Your task to perform on an android device: Open Reddit.com Image 0: 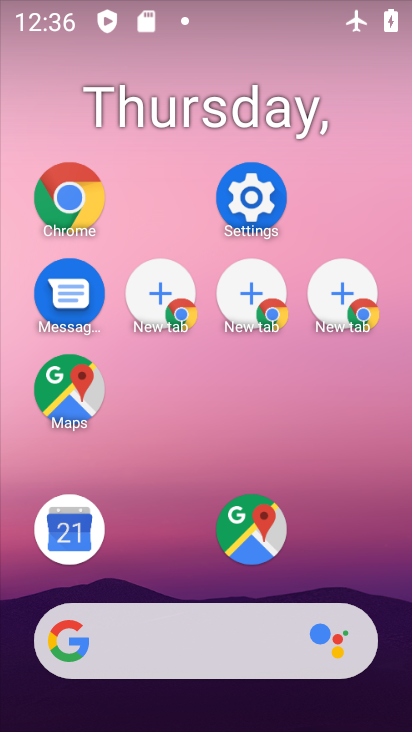
Step 0: press home button
Your task to perform on an android device: Open Reddit.com Image 1: 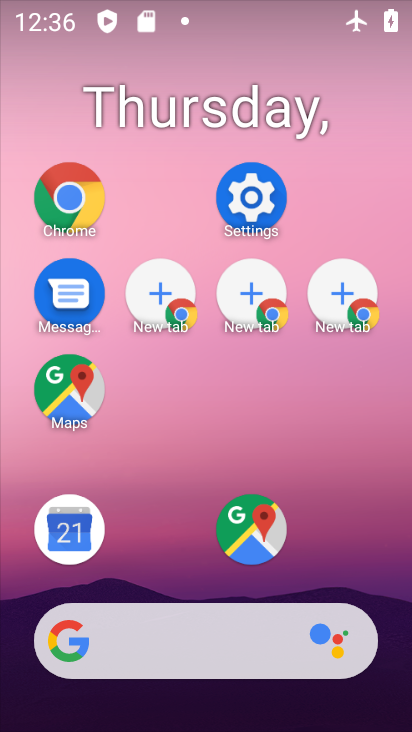
Step 1: click (102, 94)
Your task to perform on an android device: Open Reddit.com Image 2: 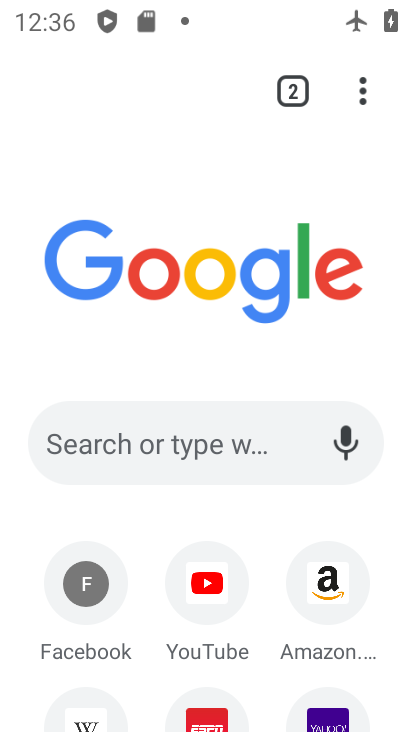
Step 2: click (107, 448)
Your task to perform on an android device: Open Reddit.com Image 3: 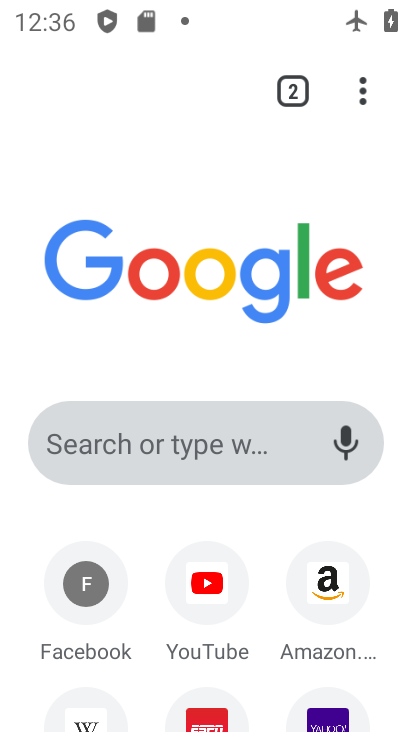
Step 3: click (103, 449)
Your task to perform on an android device: Open Reddit.com Image 4: 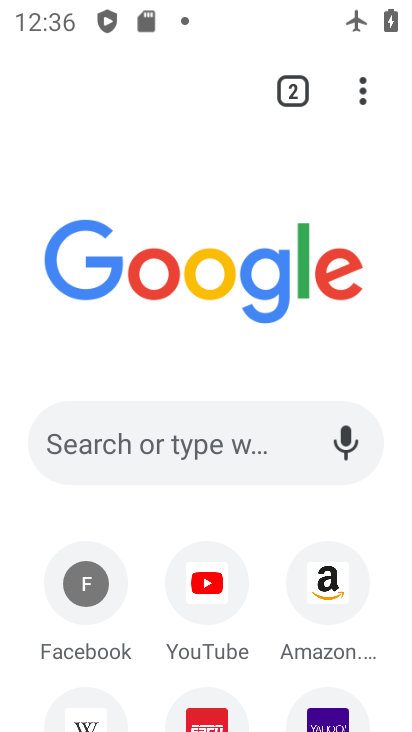
Step 4: click (167, 444)
Your task to perform on an android device: Open Reddit.com Image 5: 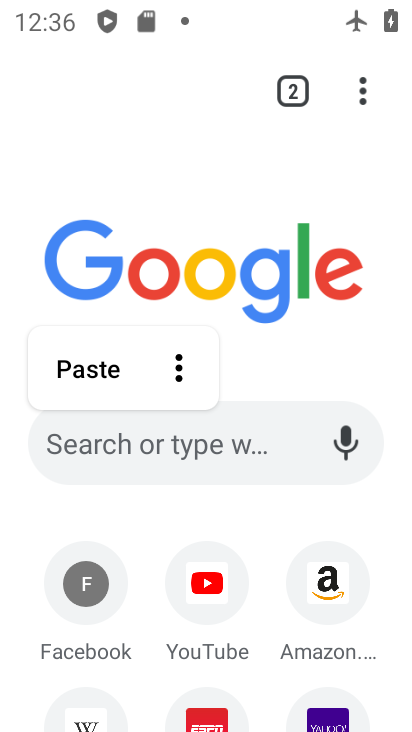
Step 5: click (78, 447)
Your task to perform on an android device: Open Reddit.com Image 6: 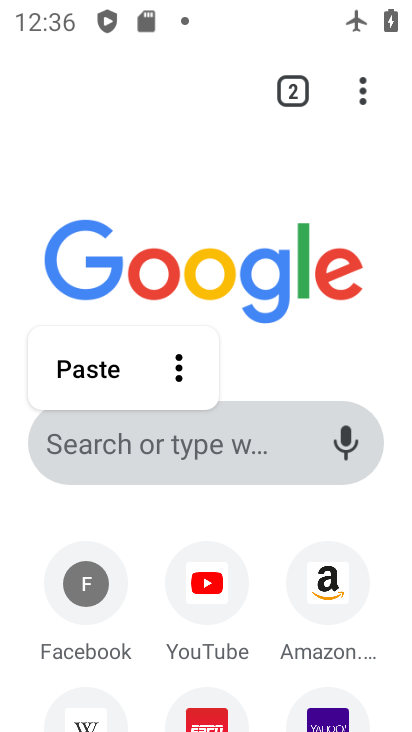
Step 6: click (80, 445)
Your task to perform on an android device: Open Reddit.com Image 7: 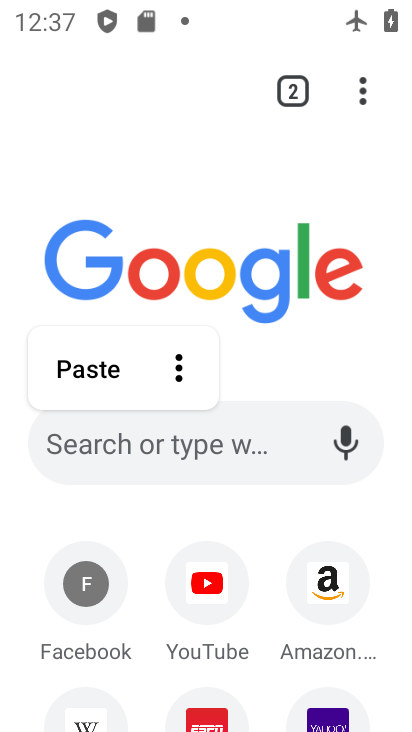
Step 7: click (87, 428)
Your task to perform on an android device: Open Reddit.com Image 8: 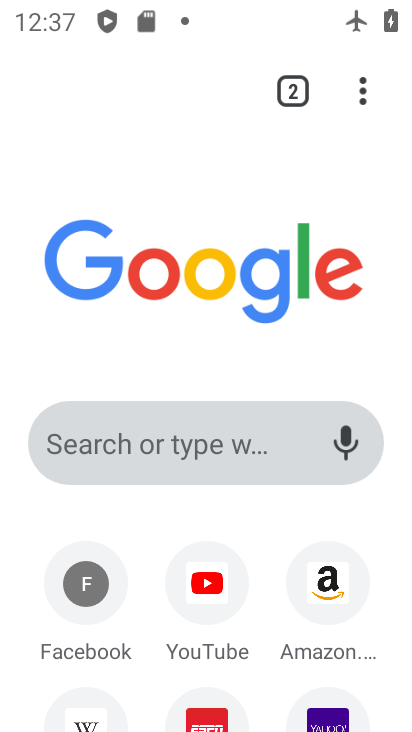
Step 8: click (82, 442)
Your task to perform on an android device: Open Reddit.com Image 9: 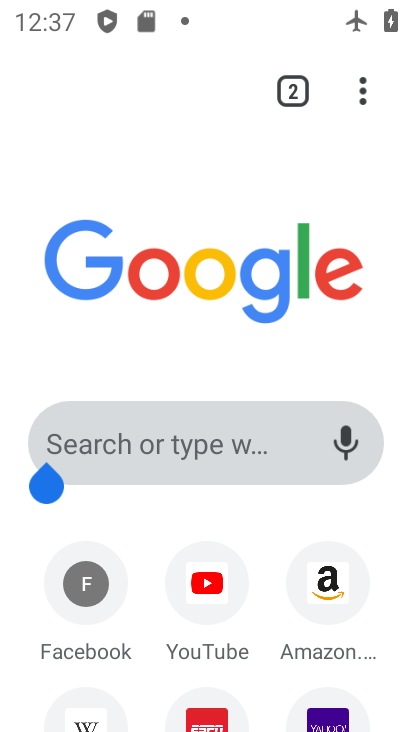
Step 9: click (83, 443)
Your task to perform on an android device: Open Reddit.com Image 10: 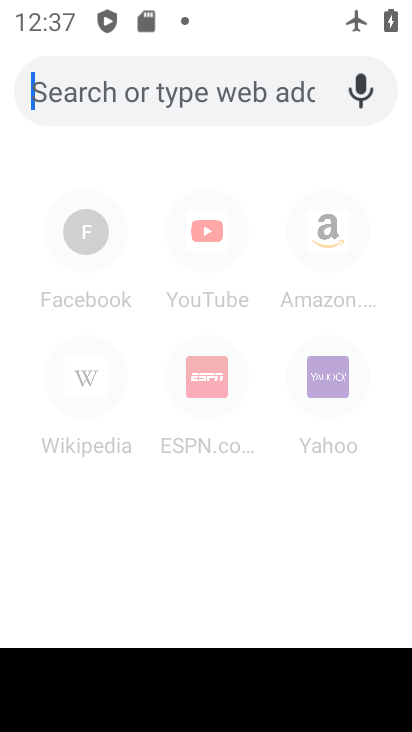
Step 10: click (88, 439)
Your task to perform on an android device: Open Reddit.com Image 11: 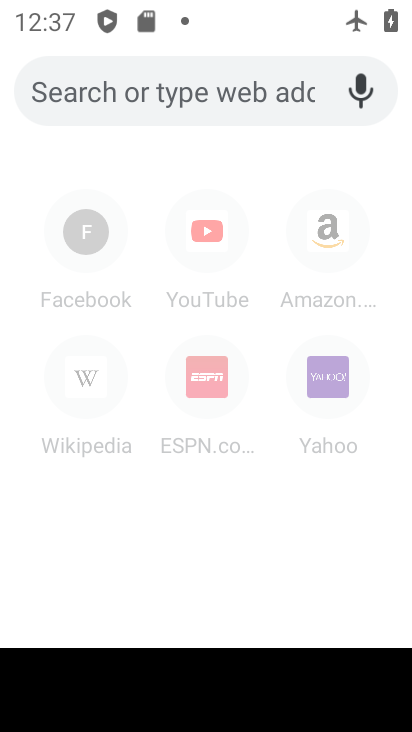
Step 11: click (88, 439)
Your task to perform on an android device: Open Reddit.com Image 12: 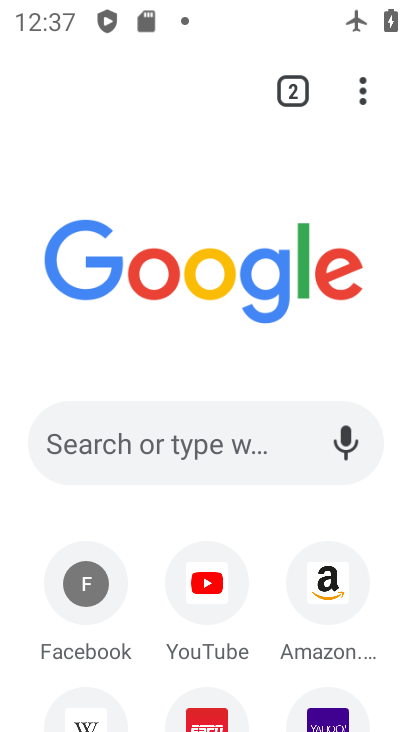
Step 12: click (80, 446)
Your task to perform on an android device: Open Reddit.com Image 13: 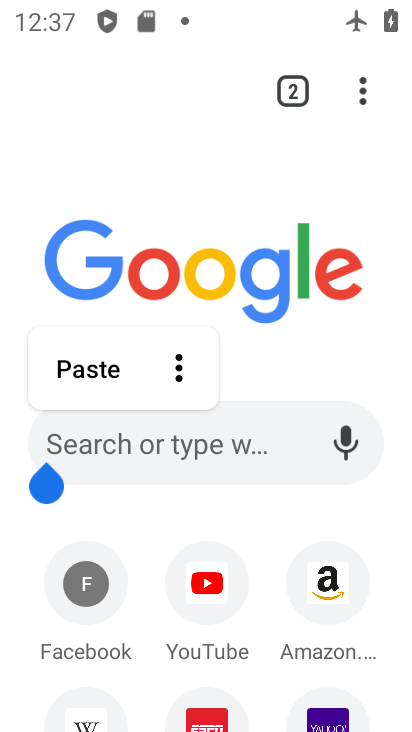
Step 13: click (80, 444)
Your task to perform on an android device: Open Reddit.com Image 14: 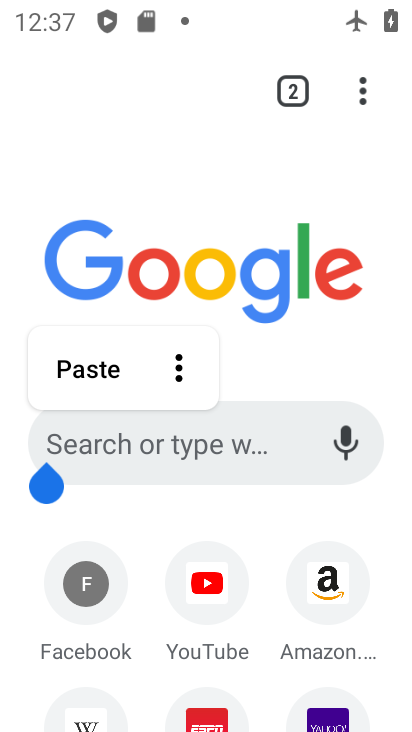
Step 14: click (97, 438)
Your task to perform on an android device: Open Reddit.com Image 15: 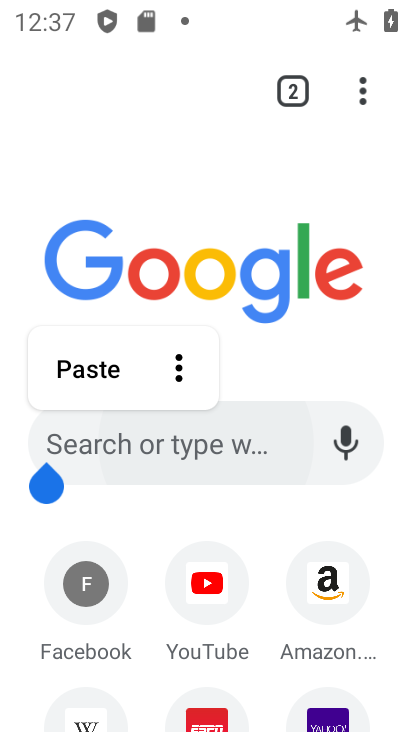
Step 15: click (96, 440)
Your task to perform on an android device: Open Reddit.com Image 16: 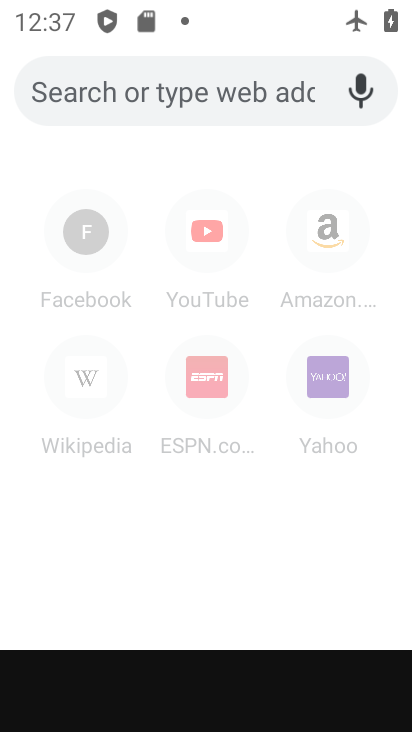
Step 16: click (65, 442)
Your task to perform on an android device: Open Reddit.com Image 17: 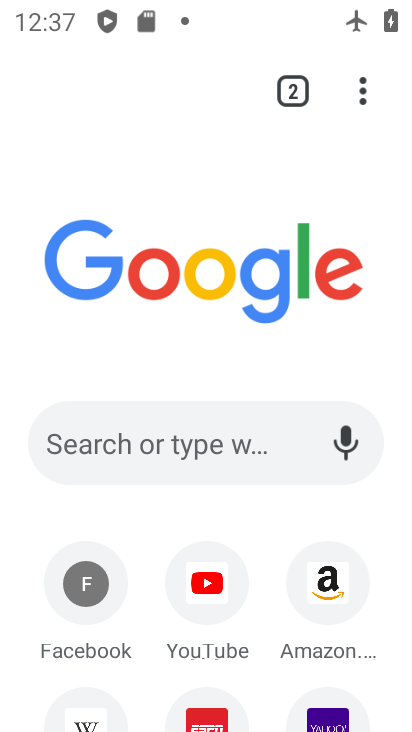
Step 17: click (85, 428)
Your task to perform on an android device: Open Reddit.com Image 18: 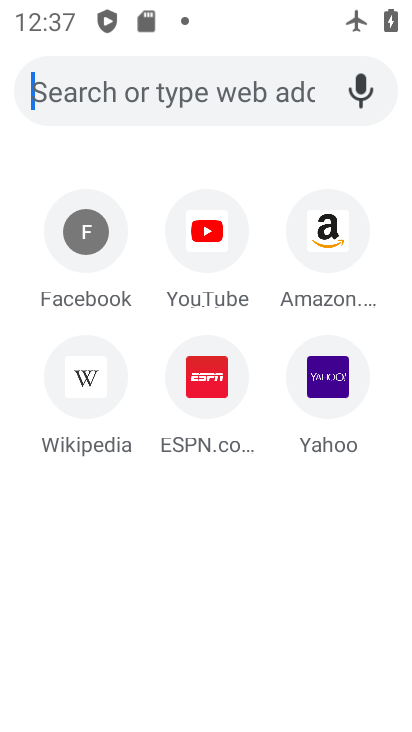
Step 18: click (83, 443)
Your task to perform on an android device: Open Reddit.com Image 19: 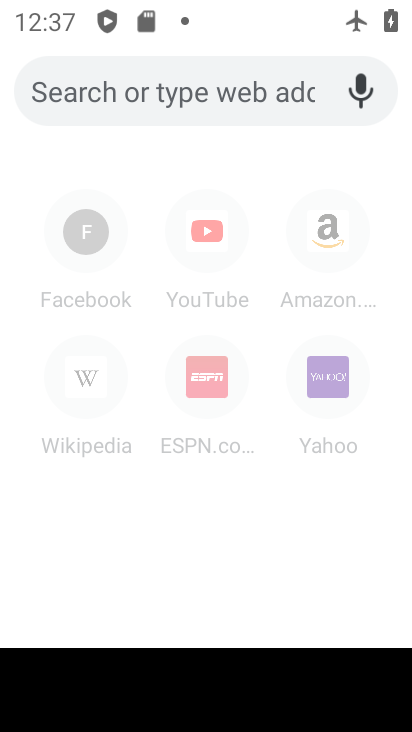
Step 19: click (83, 443)
Your task to perform on an android device: Open Reddit.com Image 20: 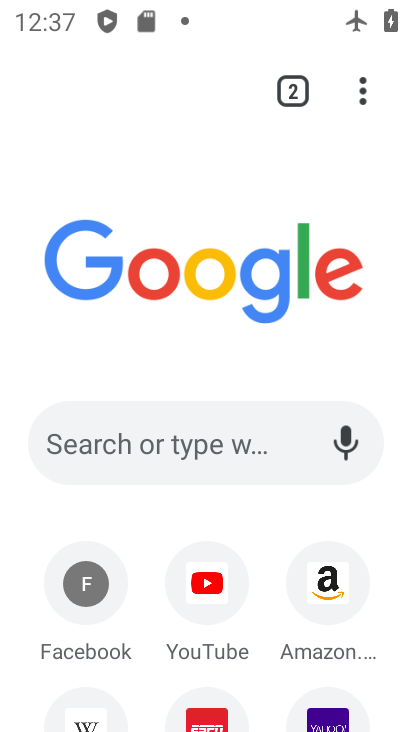
Step 20: click (87, 440)
Your task to perform on an android device: Open Reddit.com Image 21: 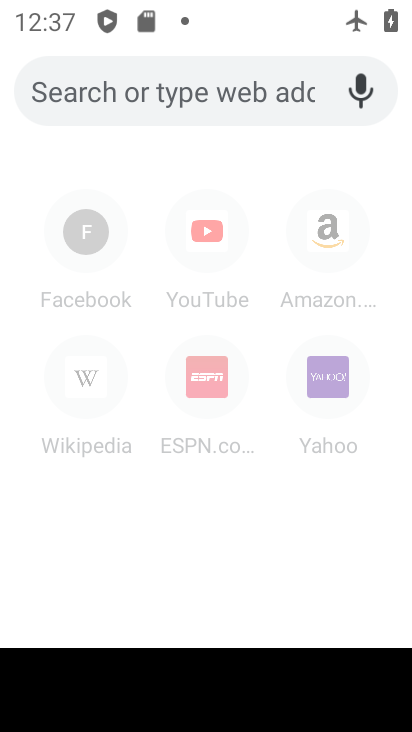
Step 21: type "www.reddit.com"
Your task to perform on an android device: Open Reddit.com Image 22: 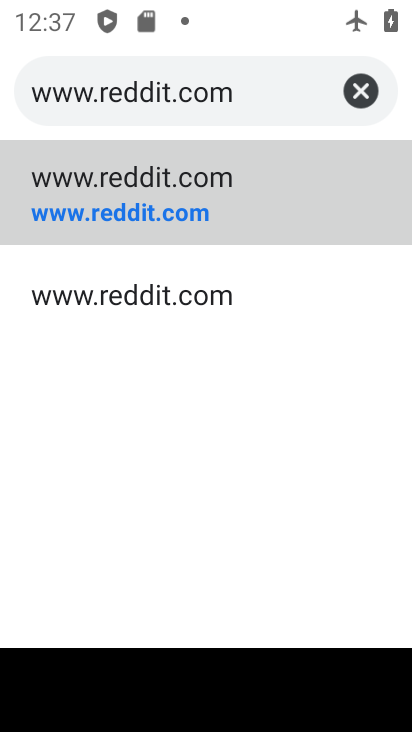
Step 22: click (186, 220)
Your task to perform on an android device: Open Reddit.com Image 23: 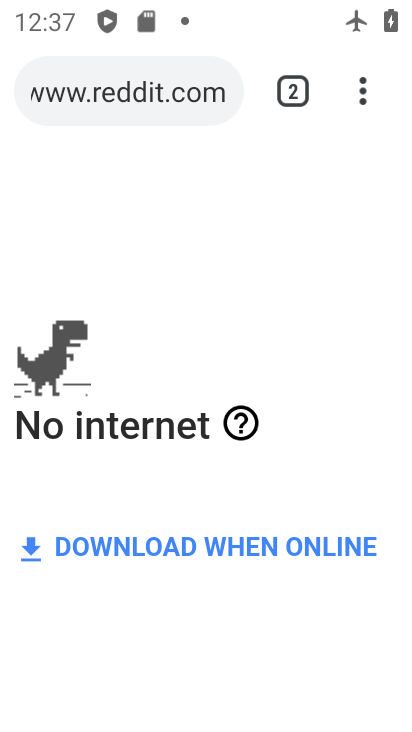
Step 23: task complete